Your task to perform on an android device: Open location settings Image 0: 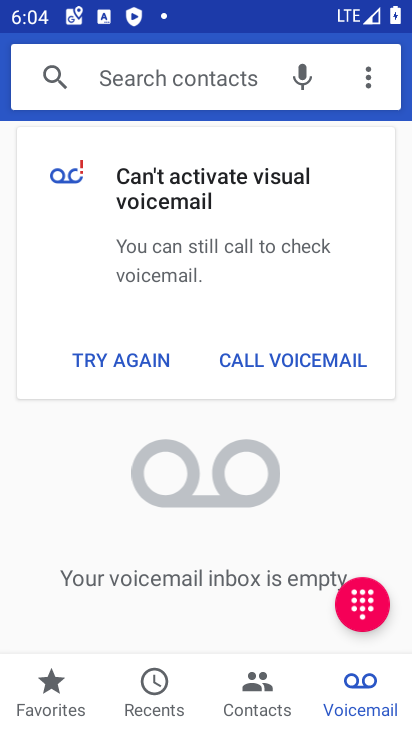
Step 0: press home button
Your task to perform on an android device: Open location settings Image 1: 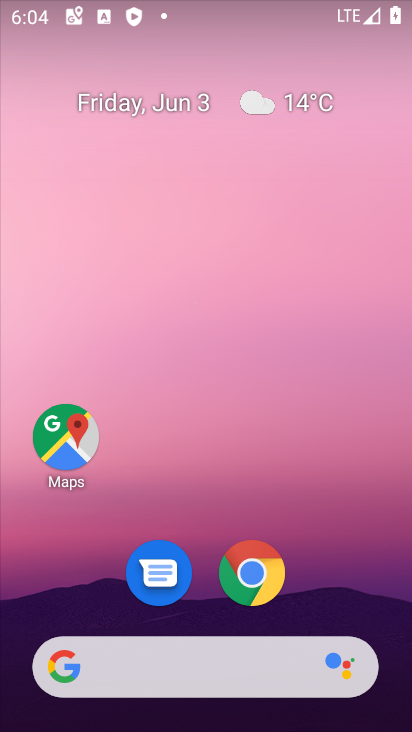
Step 1: drag from (306, 591) to (348, 0)
Your task to perform on an android device: Open location settings Image 2: 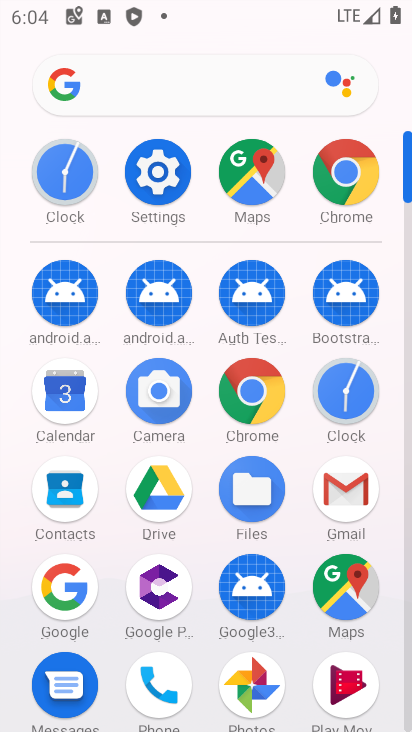
Step 2: click (143, 182)
Your task to perform on an android device: Open location settings Image 3: 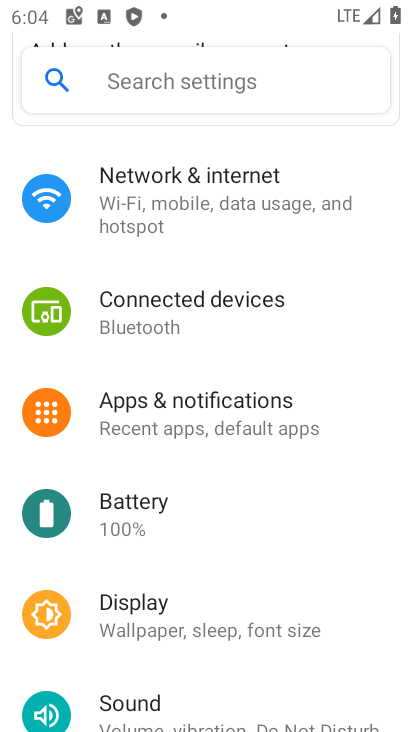
Step 3: drag from (199, 668) to (252, 129)
Your task to perform on an android device: Open location settings Image 4: 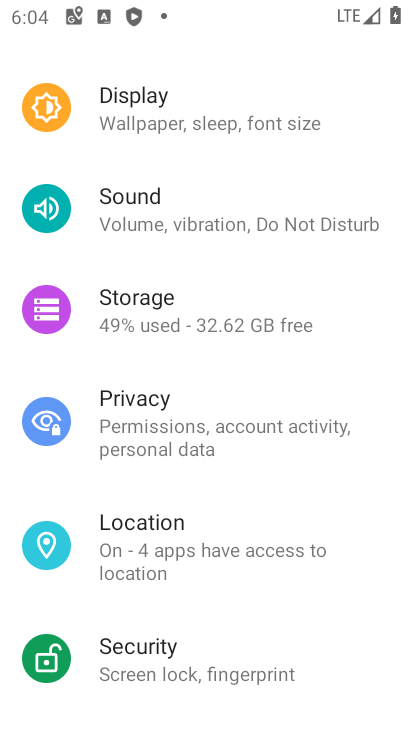
Step 4: click (230, 534)
Your task to perform on an android device: Open location settings Image 5: 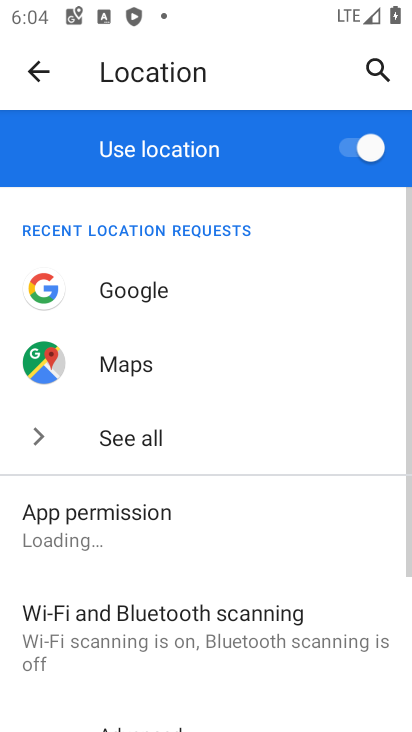
Step 5: task complete